Your task to perform on an android device: Open display settings Image 0: 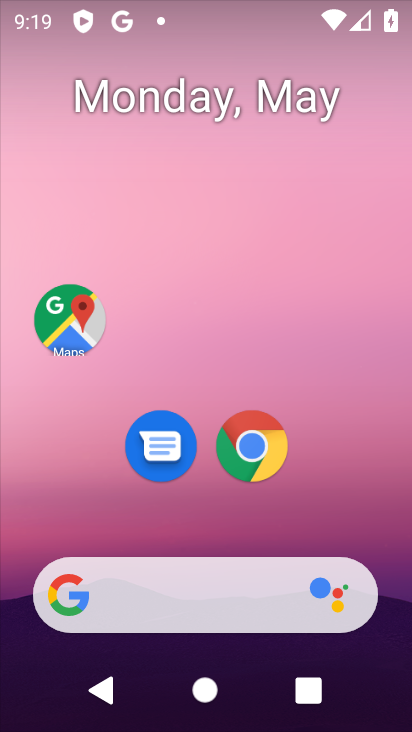
Step 0: drag from (55, 536) to (190, 104)
Your task to perform on an android device: Open display settings Image 1: 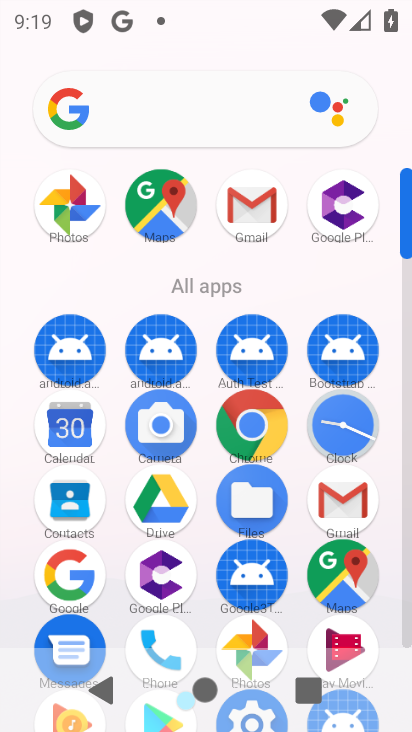
Step 1: drag from (161, 636) to (234, 349)
Your task to perform on an android device: Open display settings Image 2: 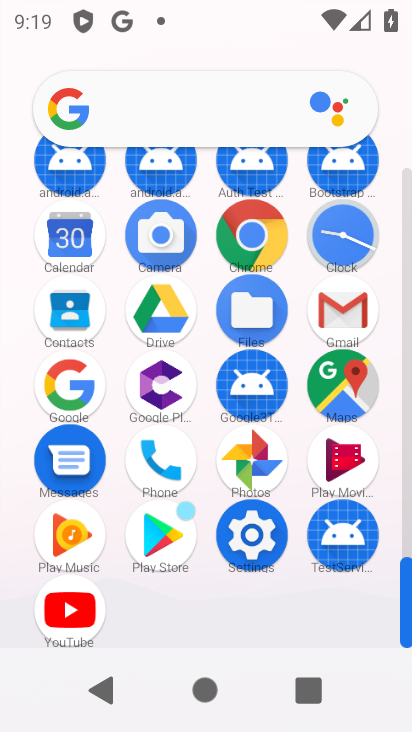
Step 2: click (251, 538)
Your task to perform on an android device: Open display settings Image 3: 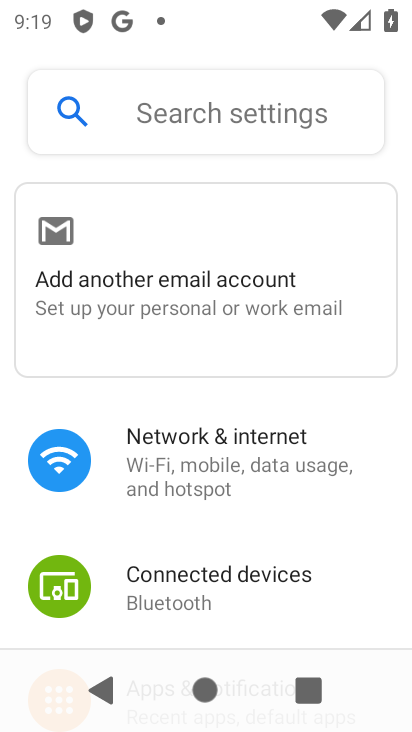
Step 3: drag from (159, 605) to (271, 145)
Your task to perform on an android device: Open display settings Image 4: 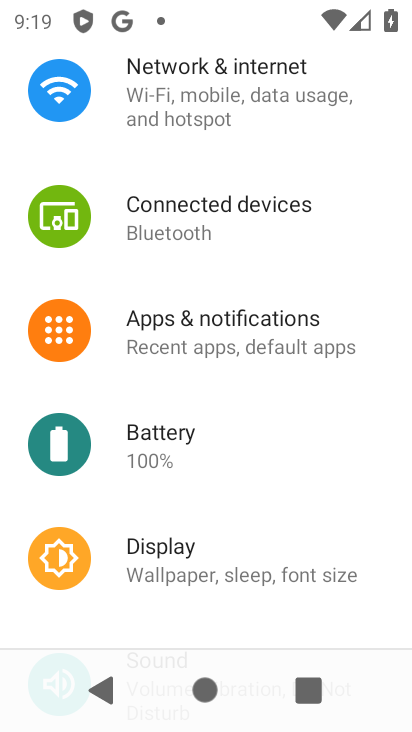
Step 4: drag from (182, 603) to (225, 380)
Your task to perform on an android device: Open display settings Image 5: 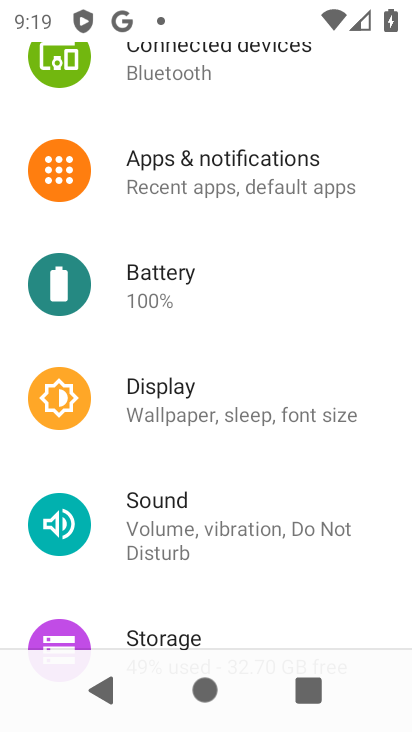
Step 5: click (166, 401)
Your task to perform on an android device: Open display settings Image 6: 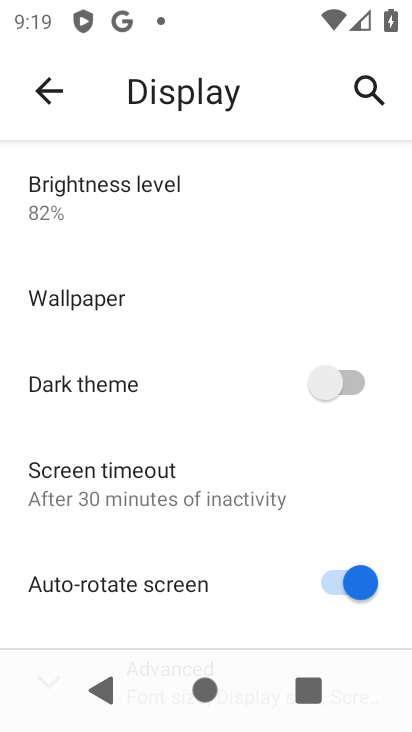
Step 6: task complete